Your task to perform on an android device: turn on showing notifications on the lock screen Image 0: 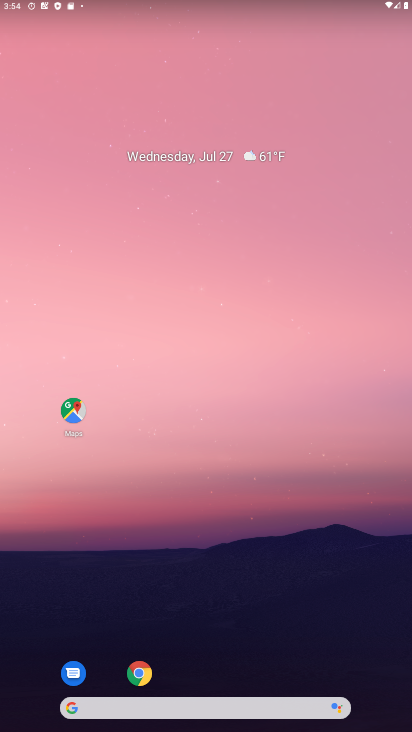
Step 0: drag from (113, 566) to (297, 120)
Your task to perform on an android device: turn on showing notifications on the lock screen Image 1: 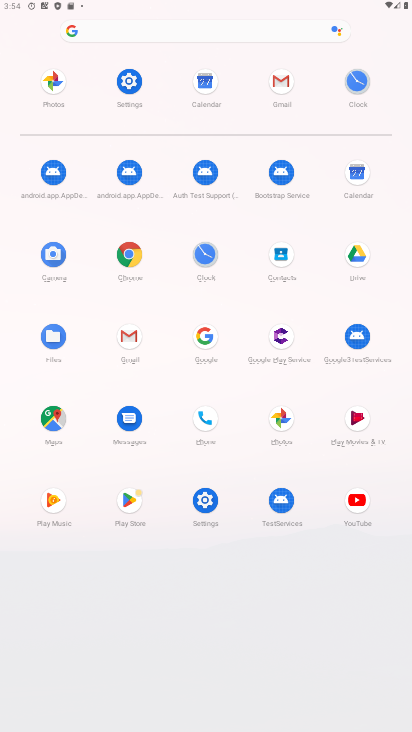
Step 1: click (202, 497)
Your task to perform on an android device: turn on showing notifications on the lock screen Image 2: 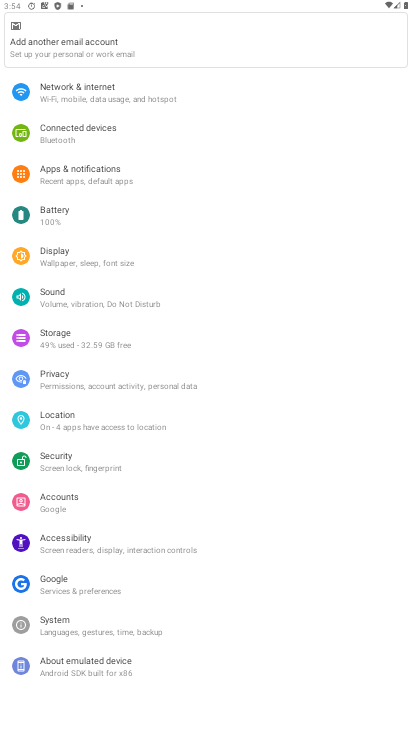
Step 2: click (93, 174)
Your task to perform on an android device: turn on showing notifications on the lock screen Image 3: 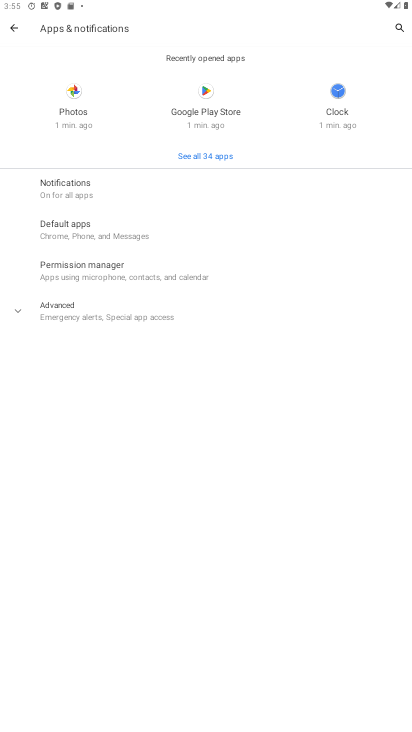
Step 3: click (78, 186)
Your task to perform on an android device: turn on showing notifications on the lock screen Image 4: 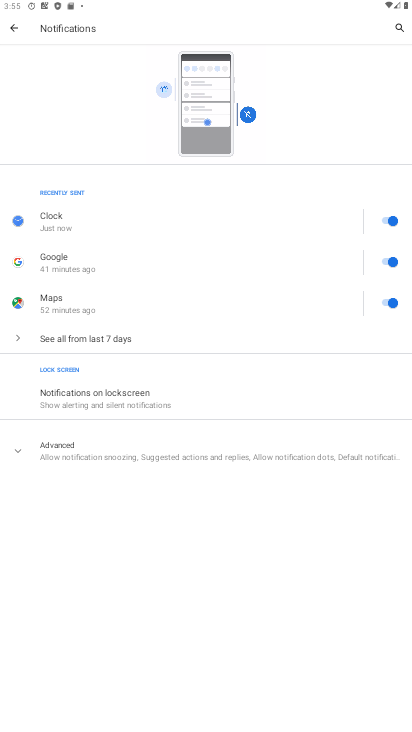
Step 4: click (89, 440)
Your task to perform on an android device: turn on showing notifications on the lock screen Image 5: 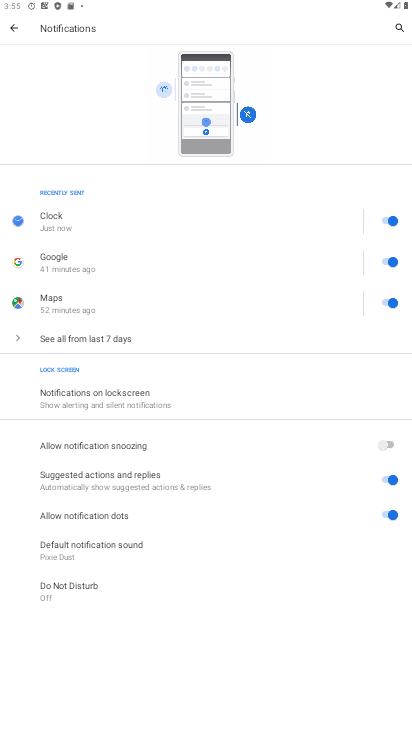
Step 5: click (79, 394)
Your task to perform on an android device: turn on showing notifications on the lock screen Image 6: 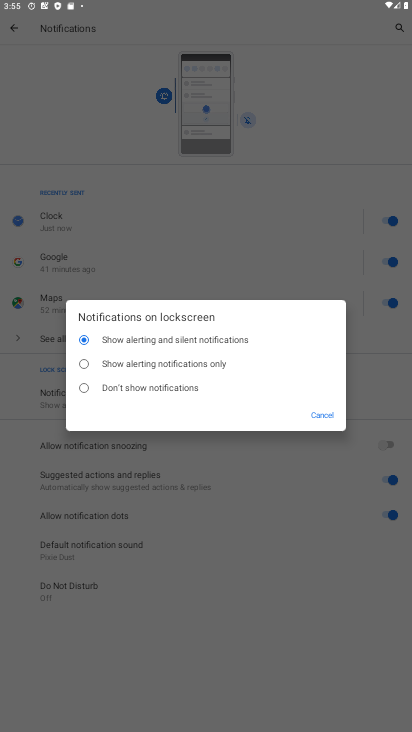
Step 6: task complete